Your task to perform on an android device: open a bookmark in the chrome app Image 0: 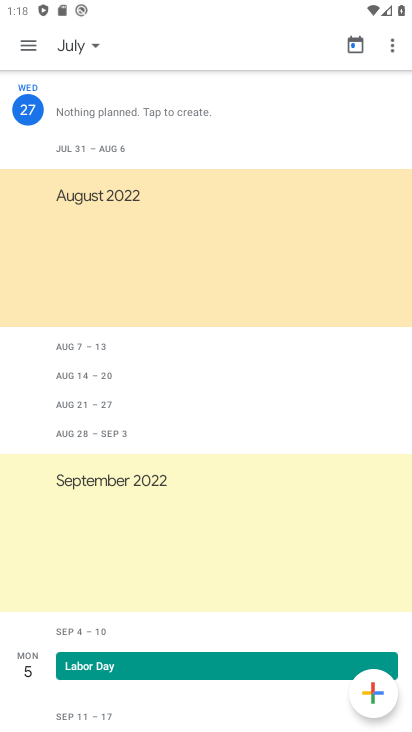
Step 0: press home button
Your task to perform on an android device: open a bookmark in the chrome app Image 1: 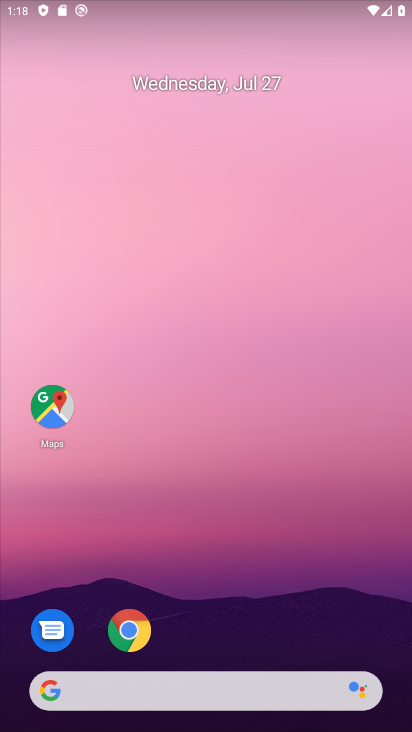
Step 1: click (125, 629)
Your task to perform on an android device: open a bookmark in the chrome app Image 2: 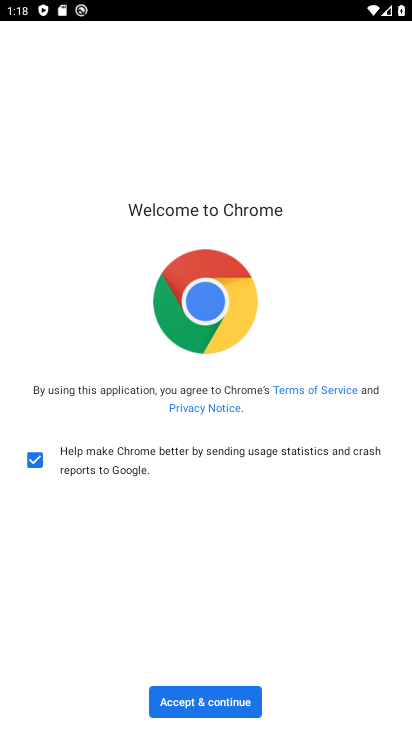
Step 2: click (204, 699)
Your task to perform on an android device: open a bookmark in the chrome app Image 3: 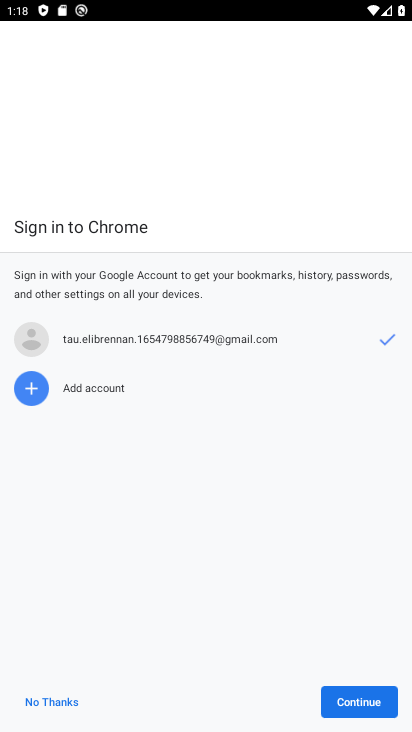
Step 3: click (364, 699)
Your task to perform on an android device: open a bookmark in the chrome app Image 4: 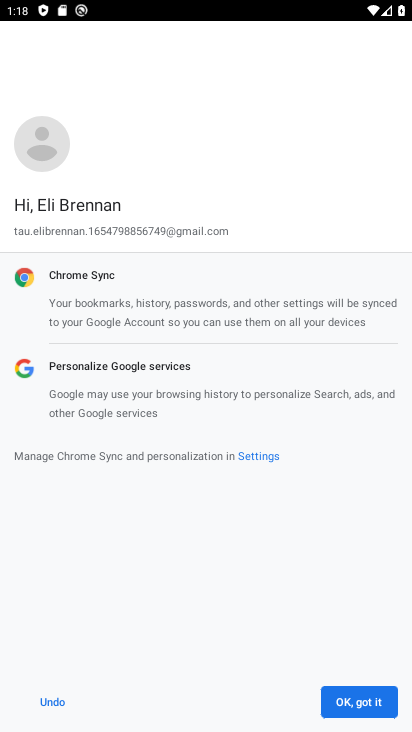
Step 4: click (361, 703)
Your task to perform on an android device: open a bookmark in the chrome app Image 5: 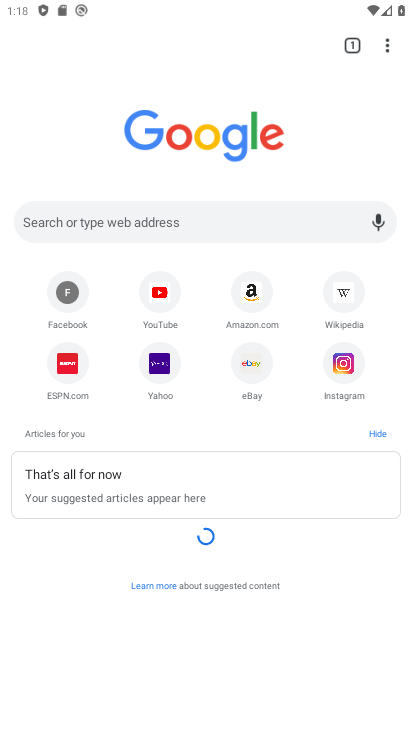
Step 5: click (384, 51)
Your task to perform on an android device: open a bookmark in the chrome app Image 6: 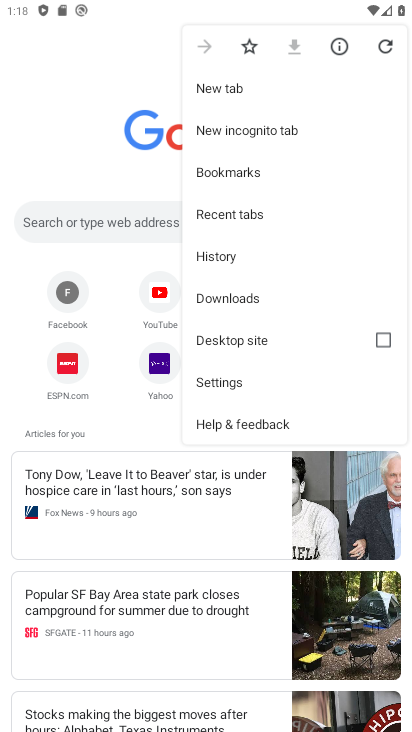
Step 6: click (223, 170)
Your task to perform on an android device: open a bookmark in the chrome app Image 7: 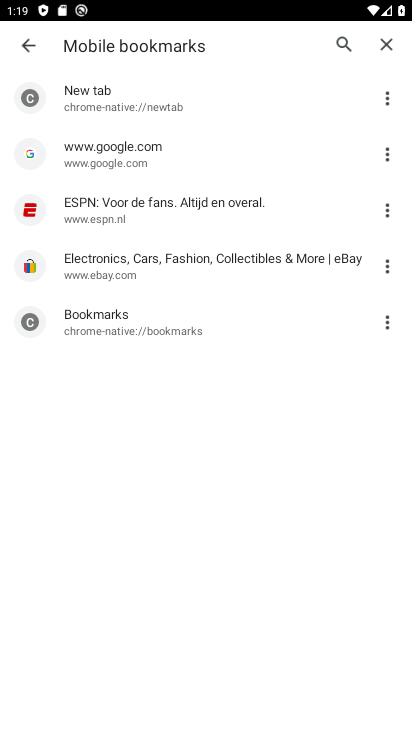
Step 7: task complete